Your task to perform on an android device: star an email in the gmail app Image 0: 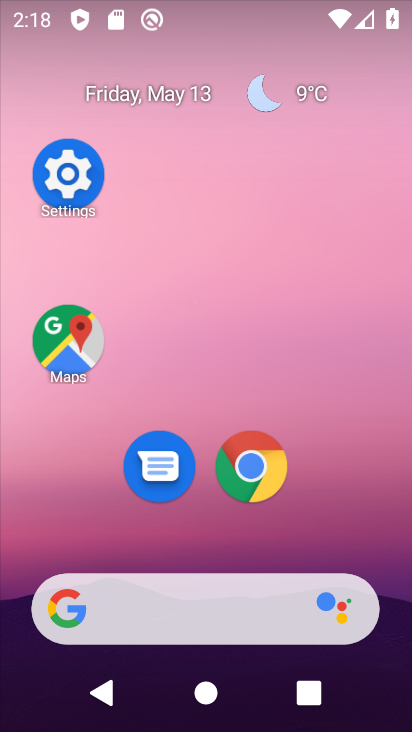
Step 0: drag from (319, 534) to (380, 150)
Your task to perform on an android device: star an email in the gmail app Image 1: 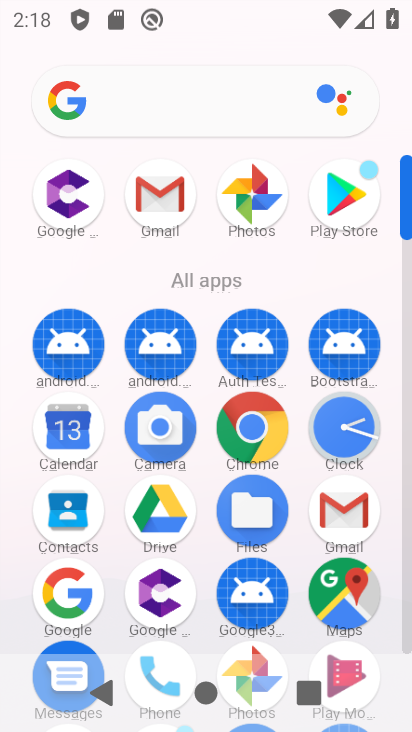
Step 1: drag from (161, 195) to (162, 294)
Your task to perform on an android device: star an email in the gmail app Image 2: 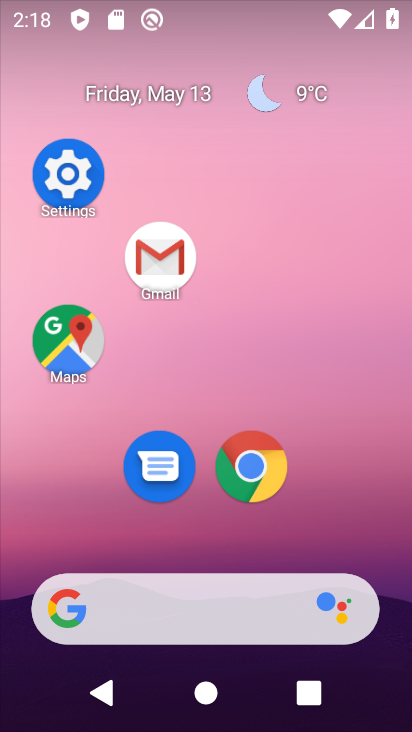
Step 2: click (174, 277)
Your task to perform on an android device: star an email in the gmail app Image 3: 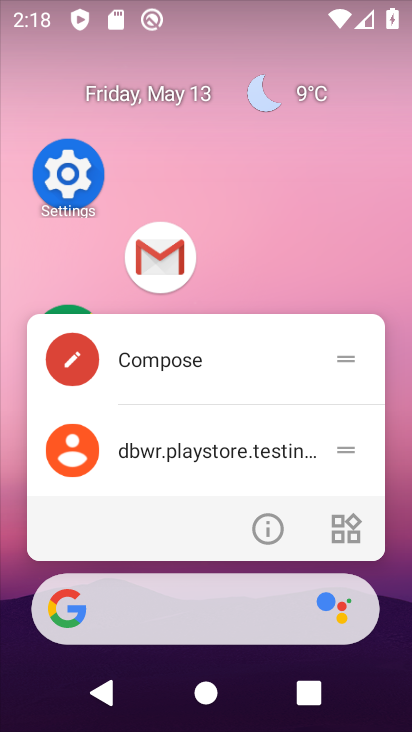
Step 3: click (174, 277)
Your task to perform on an android device: star an email in the gmail app Image 4: 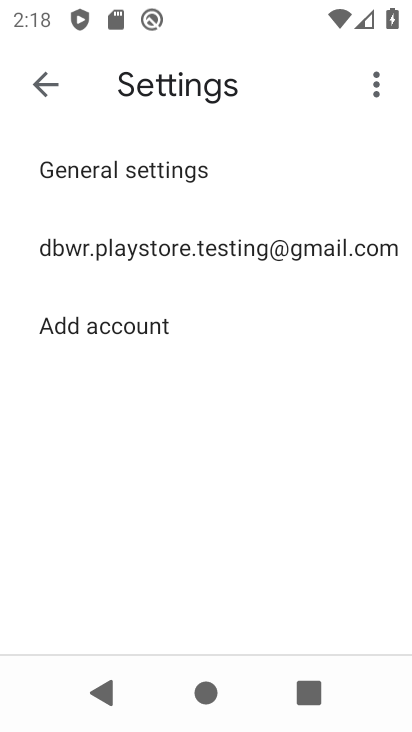
Step 4: click (156, 253)
Your task to perform on an android device: star an email in the gmail app Image 5: 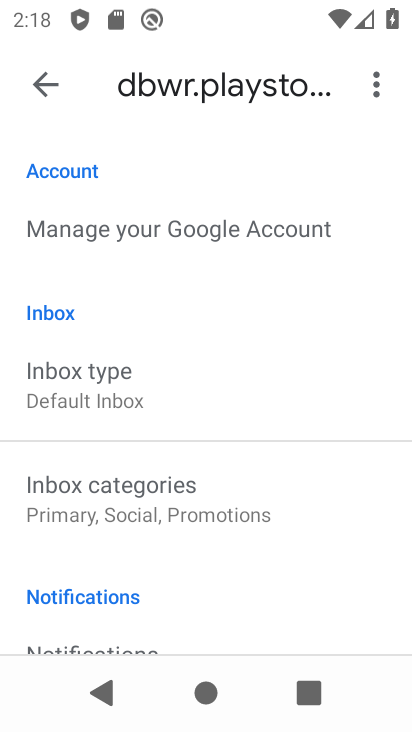
Step 5: click (55, 103)
Your task to perform on an android device: star an email in the gmail app Image 6: 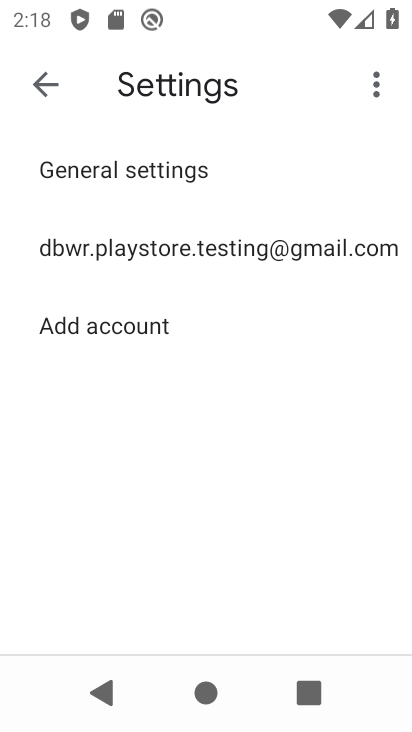
Step 6: click (55, 103)
Your task to perform on an android device: star an email in the gmail app Image 7: 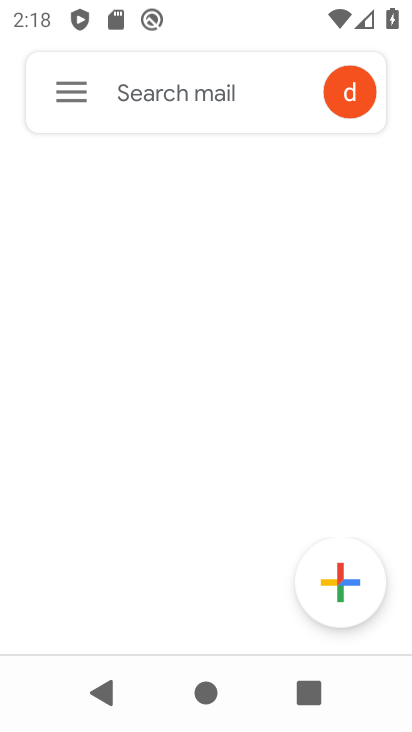
Step 7: click (55, 103)
Your task to perform on an android device: star an email in the gmail app Image 8: 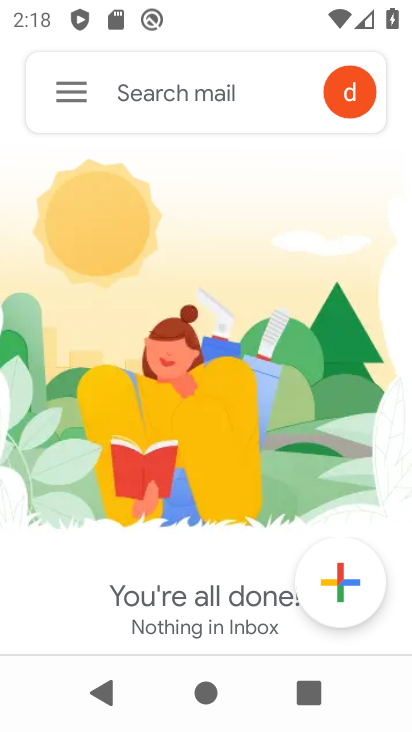
Step 8: click (98, 98)
Your task to perform on an android device: star an email in the gmail app Image 9: 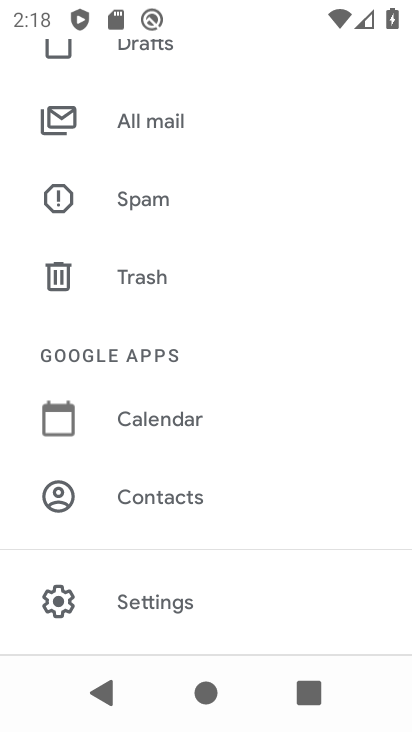
Step 9: drag from (187, 494) to (264, 340)
Your task to perform on an android device: star an email in the gmail app Image 10: 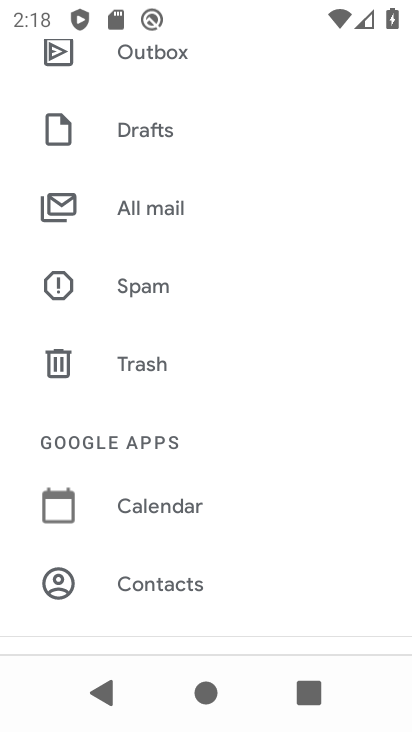
Step 10: click (199, 191)
Your task to perform on an android device: star an email in the gmail app Image 11: 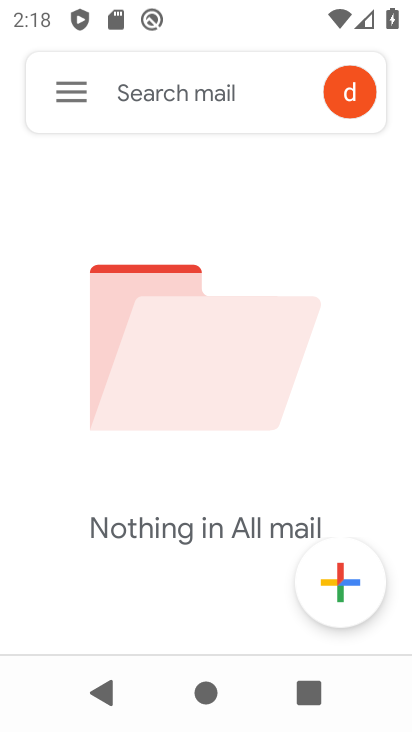
Step 11: task complete